Your task to perform on an android device: Open Reddit.com Image 0: 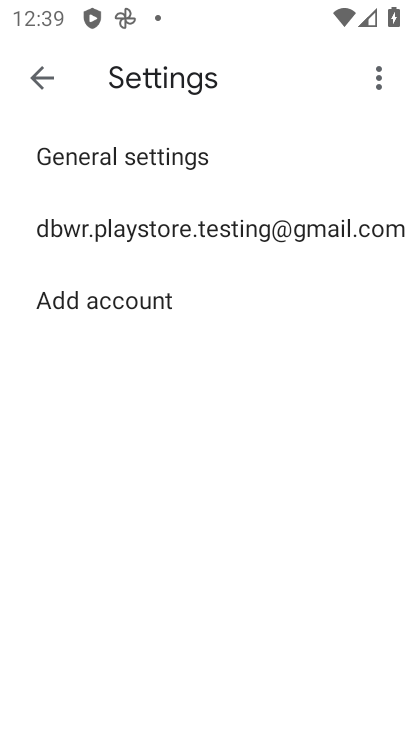
Step 0: press home button
Your task to perform on an android device: Open Reddit.com Image 1: 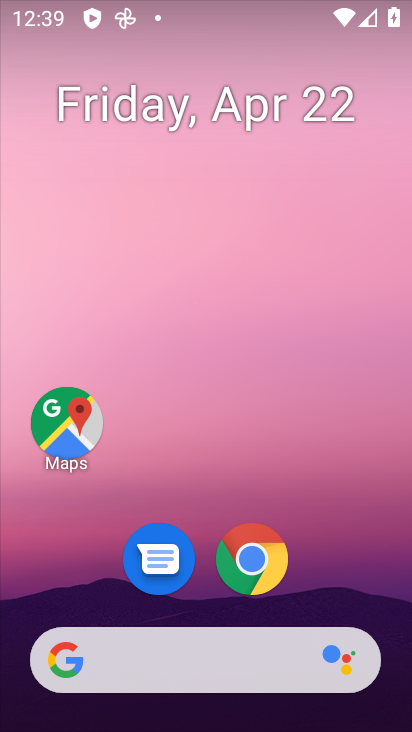
Step 1: drag from (359, 575) to (364, 175)
Your task to perform on an android device: Open Reddit.com Image 2: 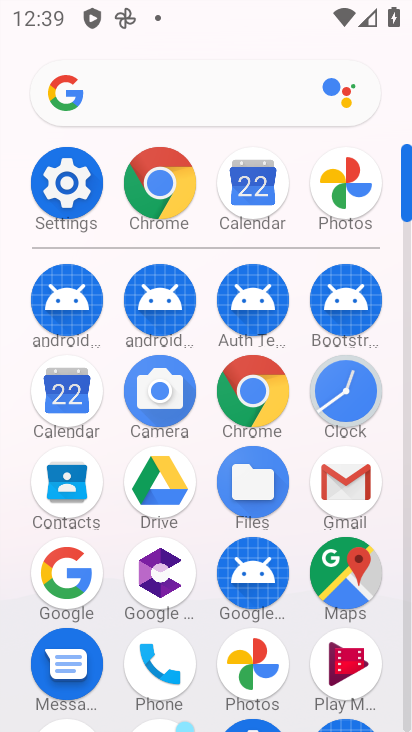
Step 2: click (260, 399)
Your task to perform on an android device: Open Reddit.com Image 3: 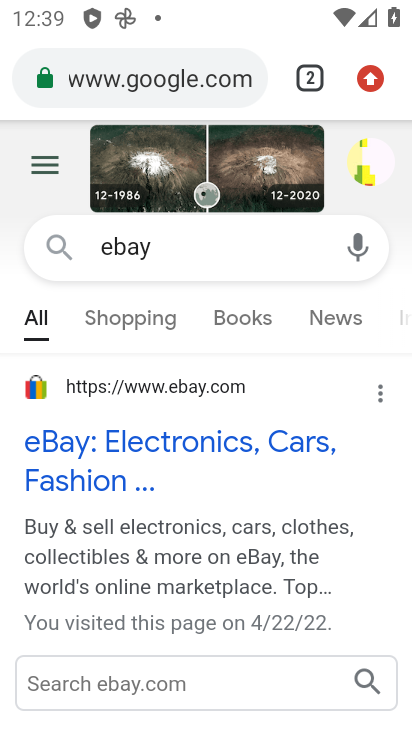
Step 3: click (228, 70)
Your task to perform on an android device: Open Reddit.com Image 4: 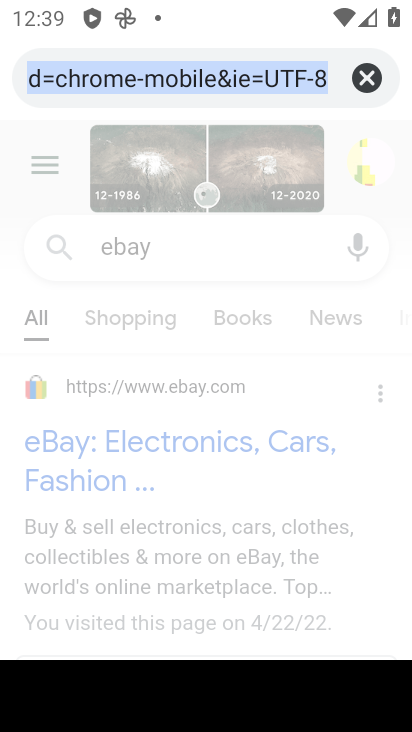
Step 4: click (365, 72)
Your task to perform on an android device: Open Reddit.com Image 5: 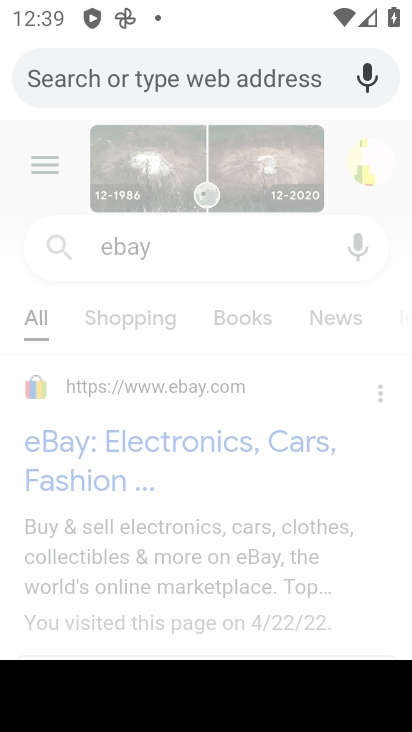
Step 5: type "reddit.com"
Your task to perform on an android device: Open Reddit.com Image 6: 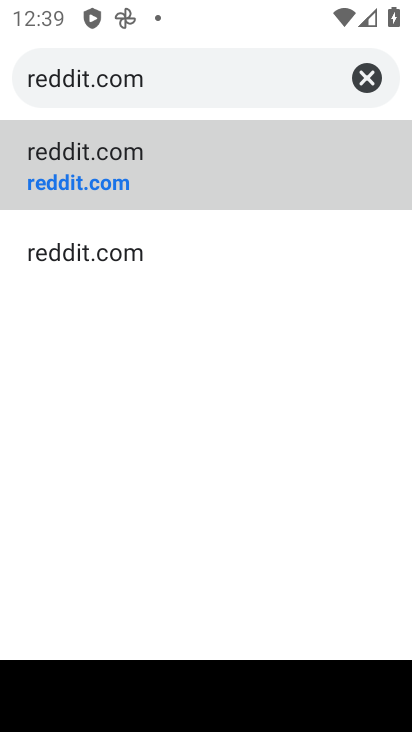
Step 6: click (184, 175)
Your task to perform on an android device: Open Reddit.com Image 7: 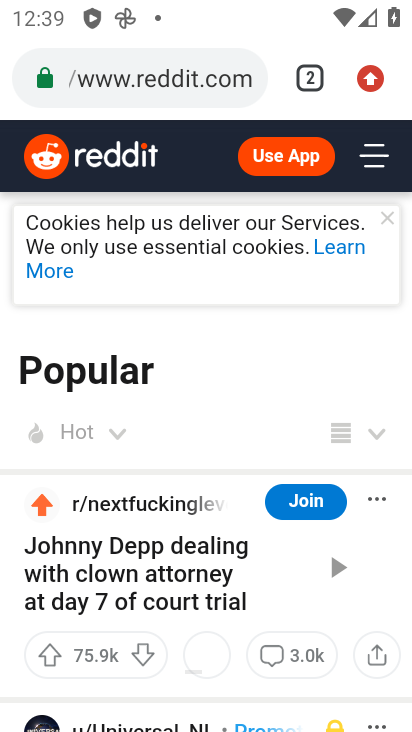
Step 7: task complete